Your task to perform on an android device: turn off javascript in the chrome app Image 0: 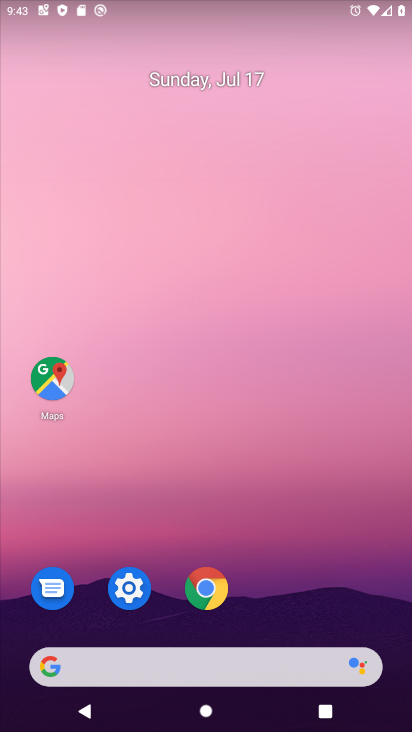
Step 0: drag from (279, 605) to (251, 8)
Your task to perform on an android device: turn off javascript in the chrome app Image 1: 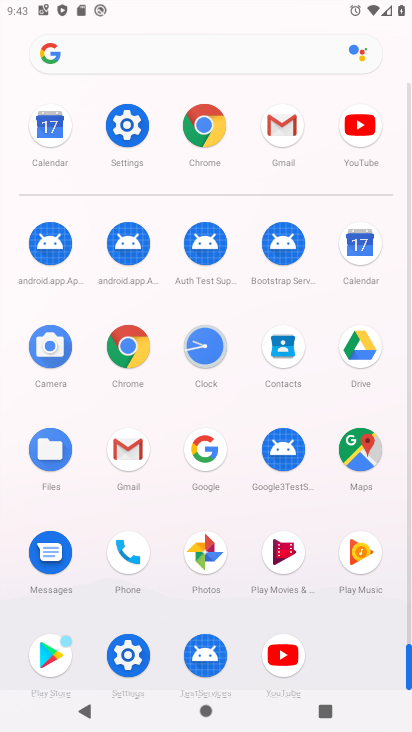
Step 1: click (204, 120)
Your task to perform on an android device: turn off javascript in the chrome app Image 2: 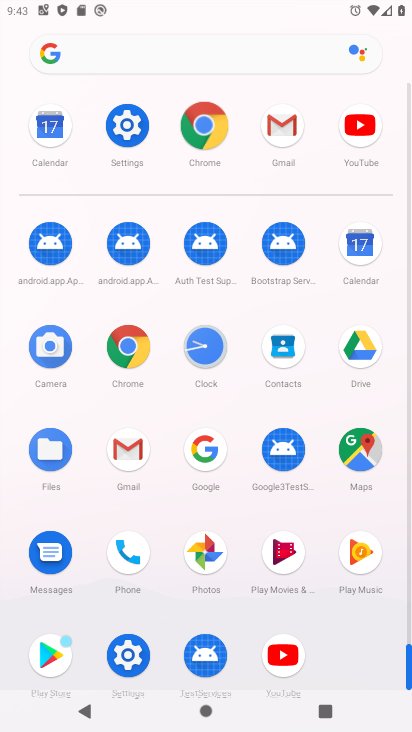
Step 2: click (202, 120)
Your task to perform on an android device: turn off javascript in the chrome app Image 3: 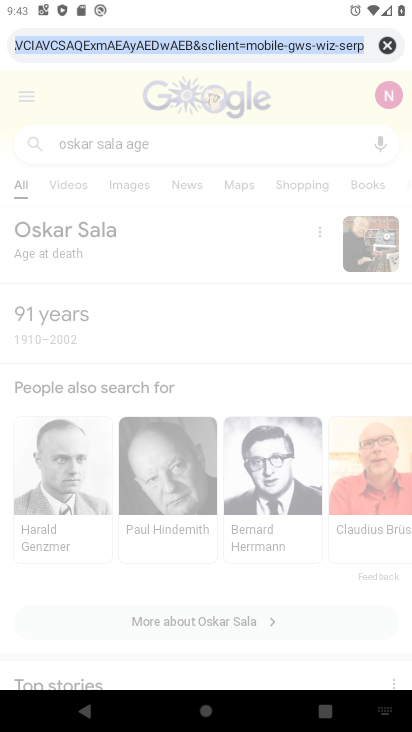
Step 3: press home button
Your task to perform on an android device: turn off javascript in the chrome app Image 4: 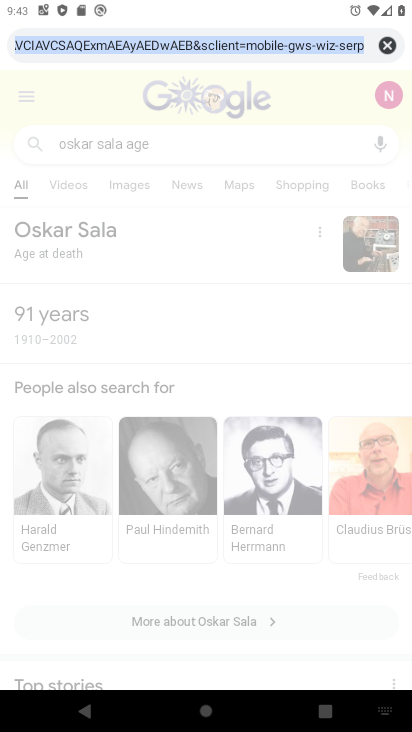
Step 4: press home button
Your task to perform on an android device: turn off javascript in the chrome app Image 5: 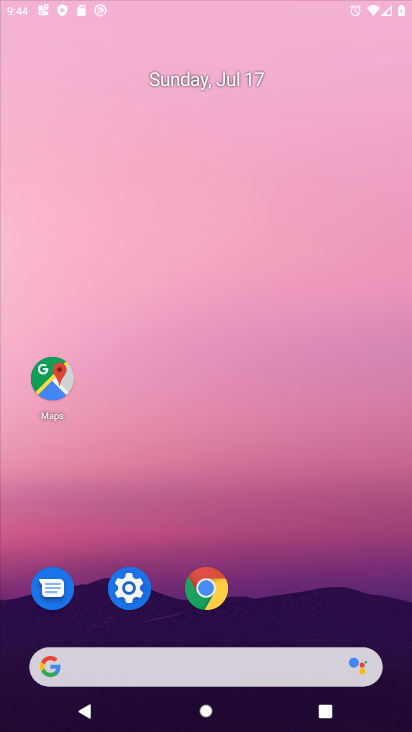
Step 5: press home button
Your task to perform on an android device: turn off javascript in the chrome app Image 6: 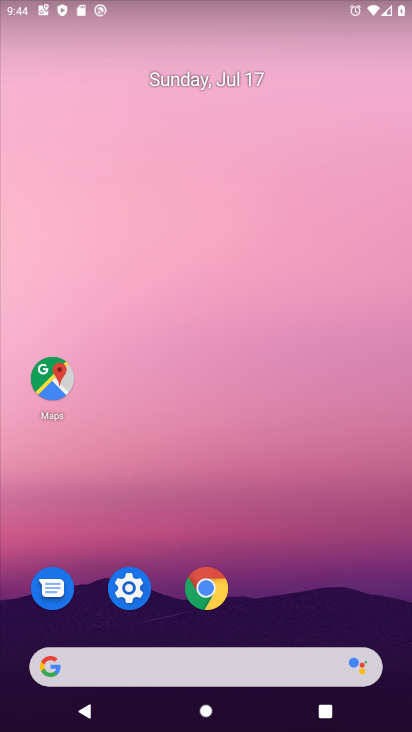
Step 6: press back button
Your task to perform on an android device: turn off javascript in the chrome app Image 7: 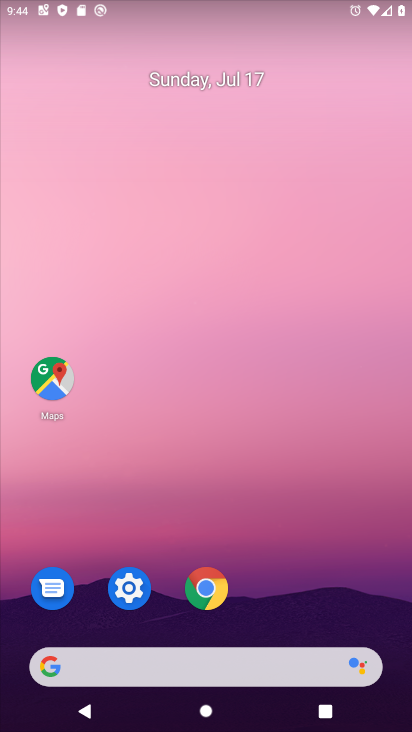
Step 7: press back button
Your task to perform on an android device: turn off javascript in the chrome app Image 8: 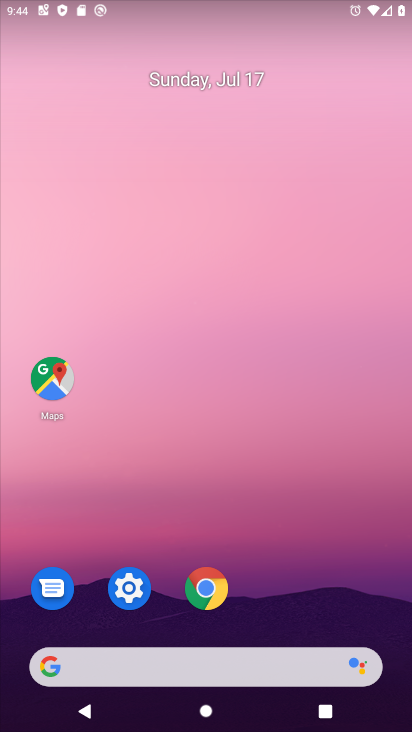
Step 8: drag from (291, 603) to (276, 149)
Your task to perform on an android device: turn off javascript in the chrome app Image 9: 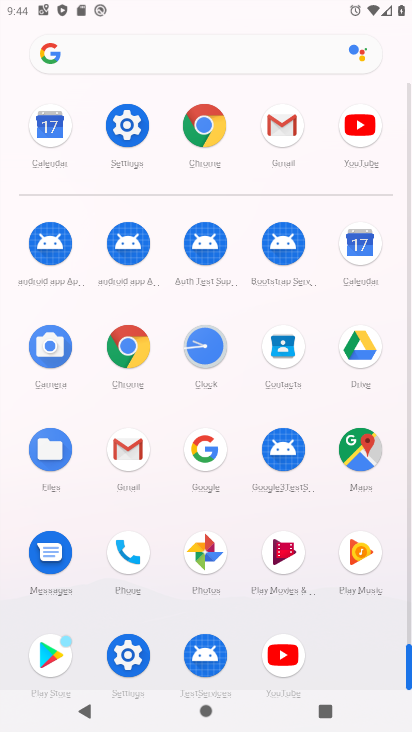
Step 9: click (207, 131)
Your task to perform on an android device: turn off javascript in the chrome app Image 10: 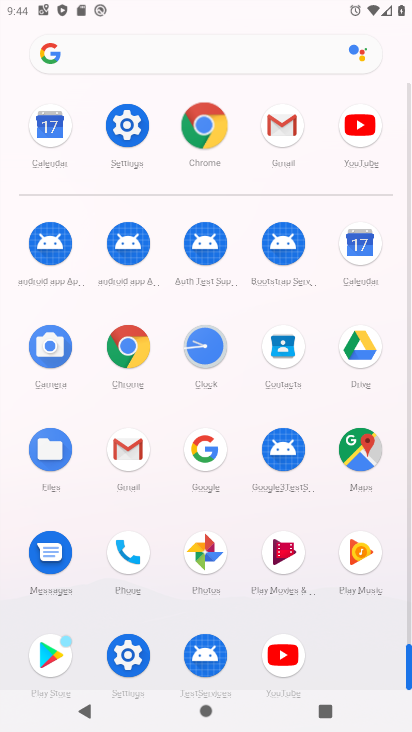
Step 10: click (207, 143)
Your task to perform on an android device: turn off javascript in the chrome app Image 11: 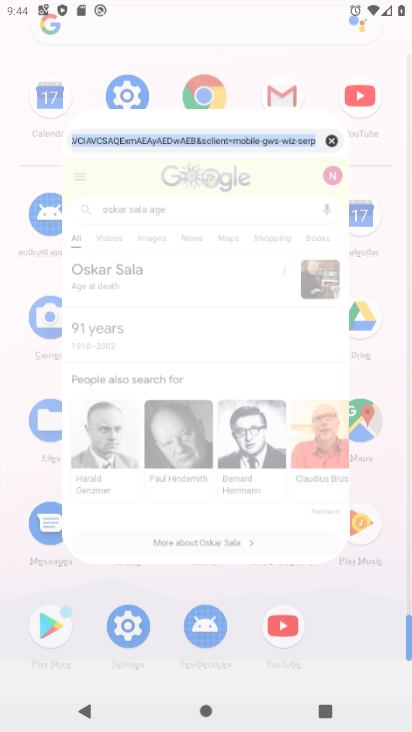
Step 11: click (207, 148)
Your task to perform on an android device: turn off javascript in the chrome app Image 12: 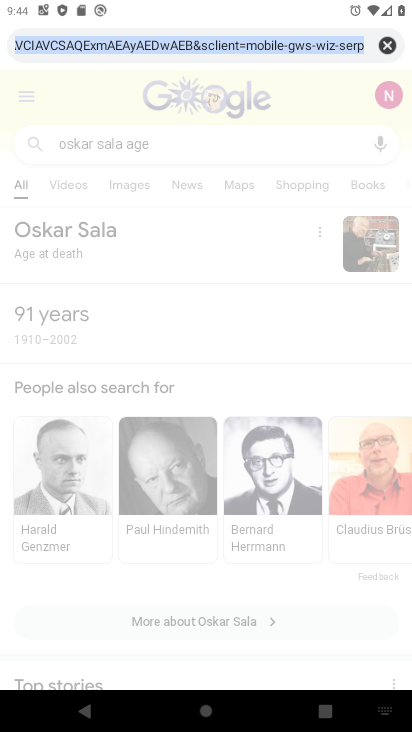
Step 12: click (389, 51)
Your task to perform on an android device: turn off javascript in the chrome app Image 13: 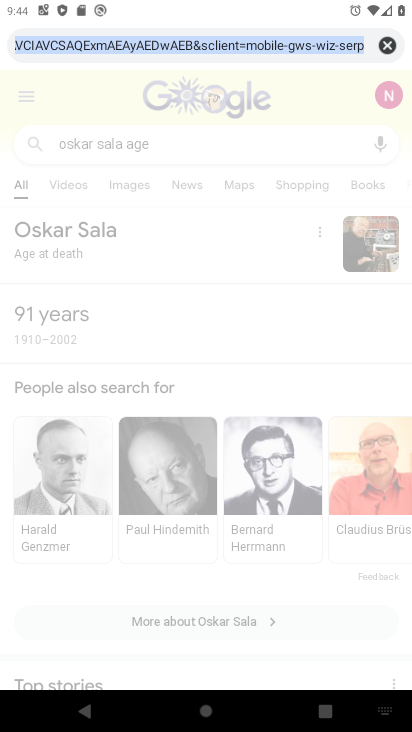
Step 13: click (389, 51)
Your task to perform on an android device: turn off javascript in the chrome app Image 14: 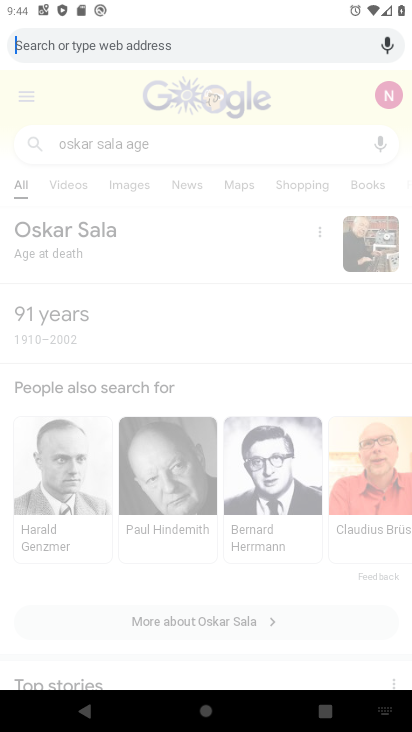
Step 14: click (387, 53)
Your task to perform on an android device: turn off javascript in the chrome app Image 15: 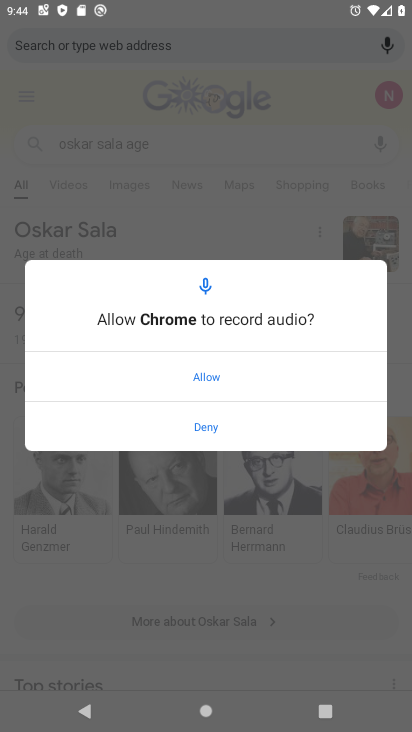
Step 15: click (207, 376)
Your task to perform on an android device: turn off javascript in the chrome app Image 16: 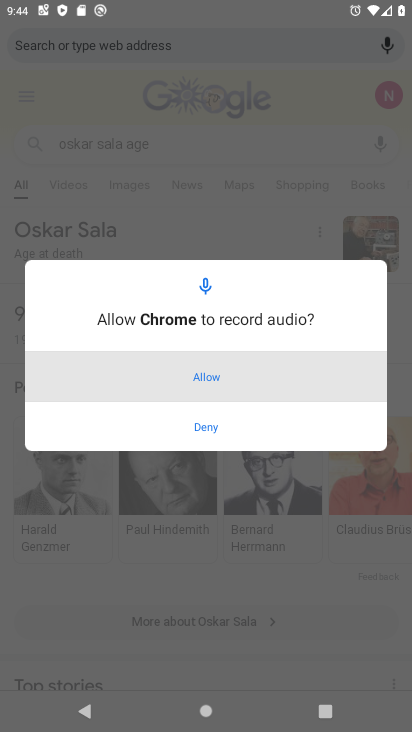
Step 16: click (207, 377)
Your task to perform on an android device: turn off javascript in the chrome app Image 17: 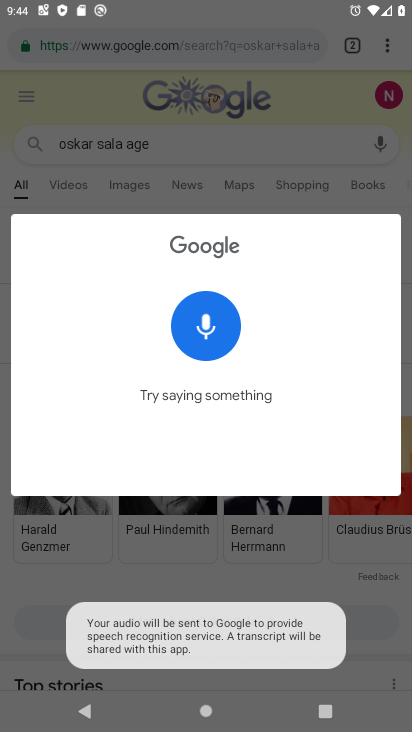
Step 17: click (388, 48)
Your task to perform on an android device: turn off javascript in the chrome app Image 18: 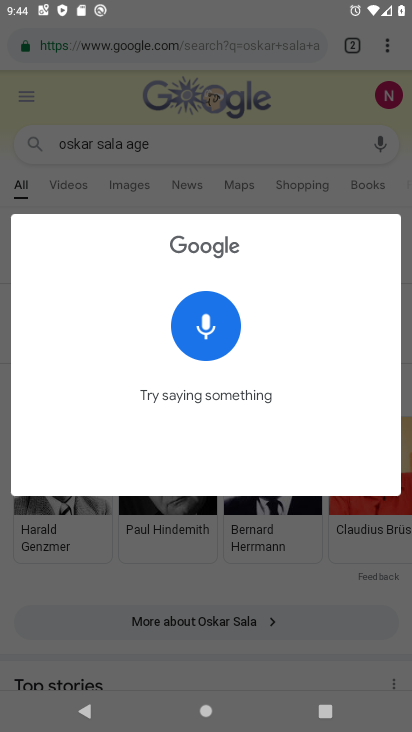
Step 18: click (384, 53)
Your task to perform on an android device: turn off javascript in the chrome app Image 19: 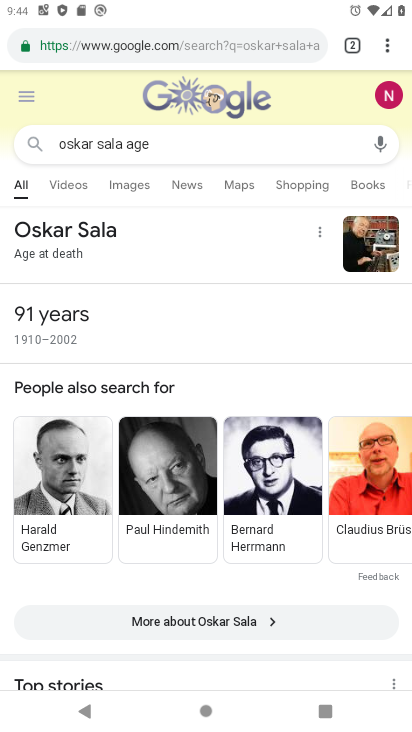
Step 19: click (386, 55)
Your task to perform on an android device: turn off javascript in the chrome app Image 20: 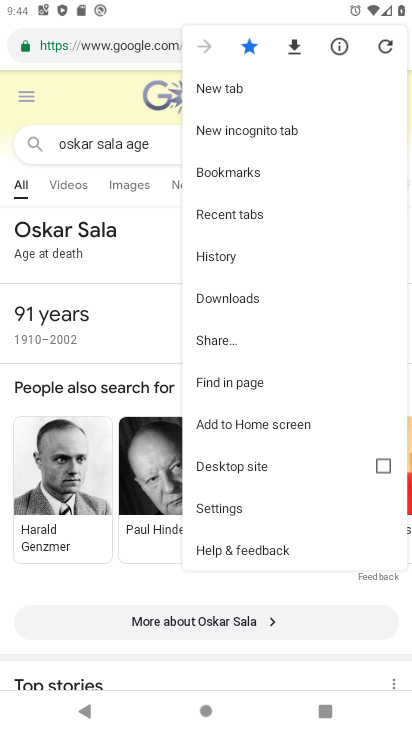
Step 20: click (225, 507)
Your task to perform on an android device: turn off javascript in the chrome app Image 21: 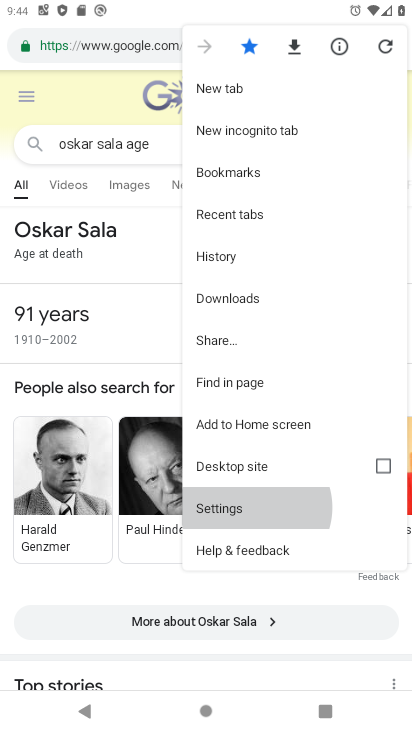
Step 21: click (228, 507)
Your task to perform on an android device: turn off javascript in the chrome app Image 22: 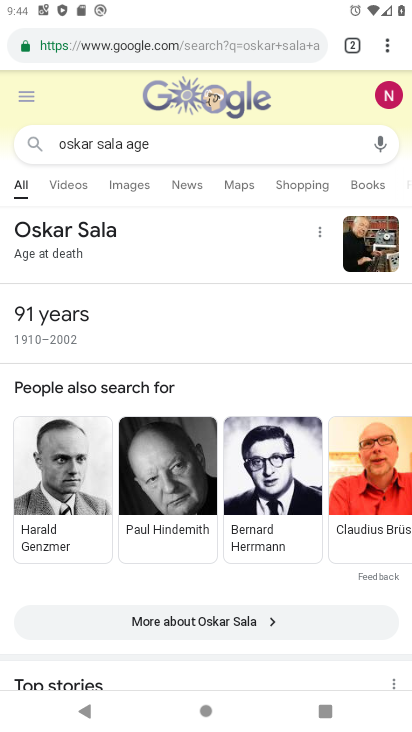
Step 22: click (227, 511)
Your task to perform on an android device: turn off javascript in the chrome app Image 23: 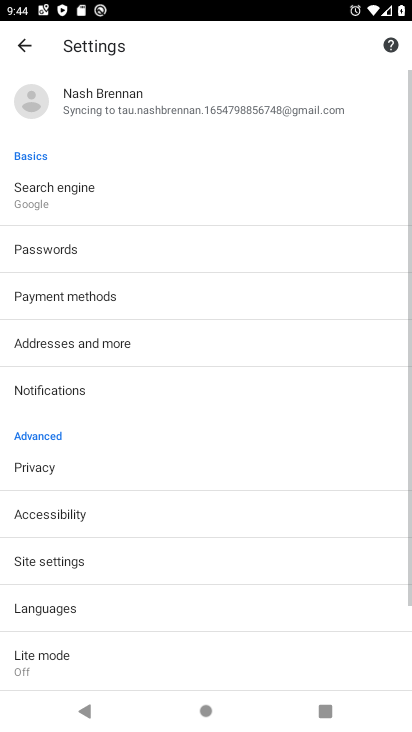
Step 23: drag from (83, 482) to (103, 33)
Your task to perform on an android device: turn off javascript in the chrome app Image 24: 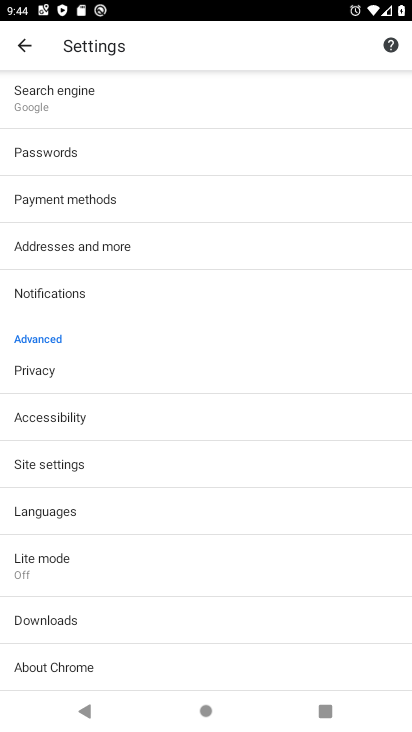
Step 24: click (43, 464)
Your task to perform on an android device: turn off javascript in the chrome app Image 25: 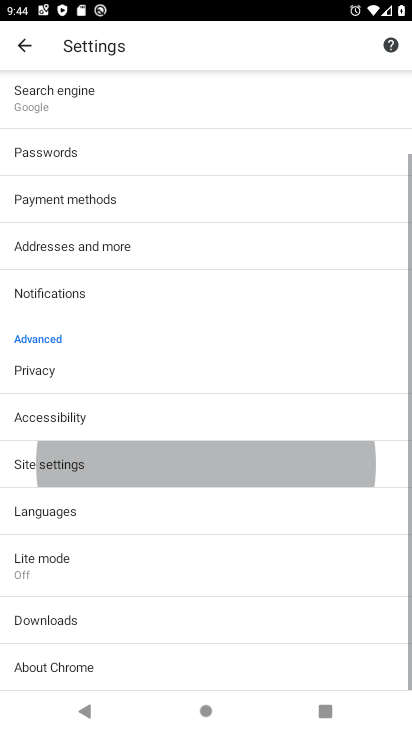
Step 25: click (63, 474)
Your task to perform on an android device: turn off javascript in the chrome app Image 26: 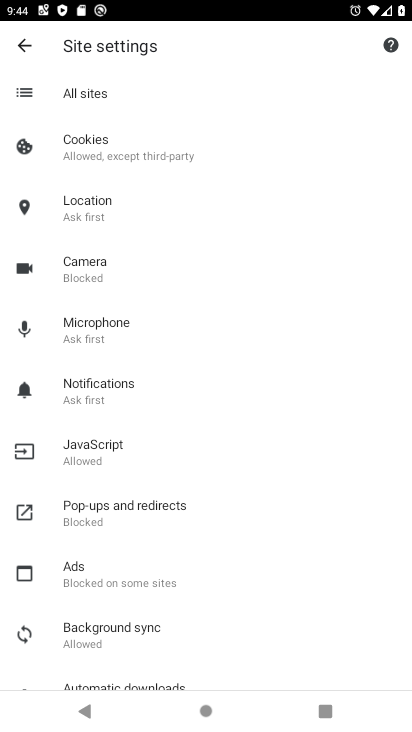
Step 26: click (96, 468)
Your task to perform on an android device: turn off javascript in the chrome app Image 27: 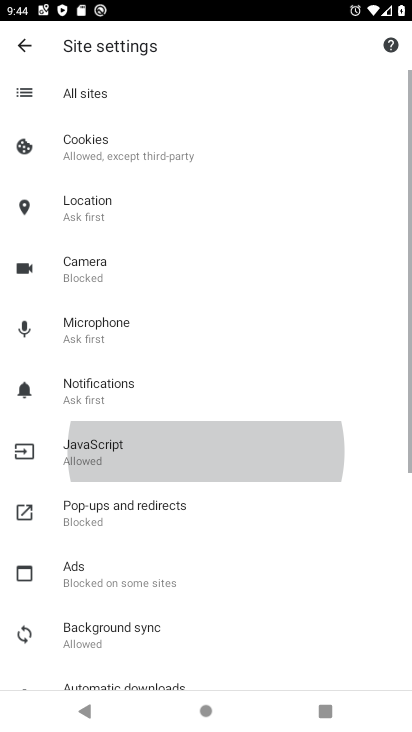
Step 27: click (96, 468)
Your task to perform on an android device: turn off javascript in the chrome app Image 28: 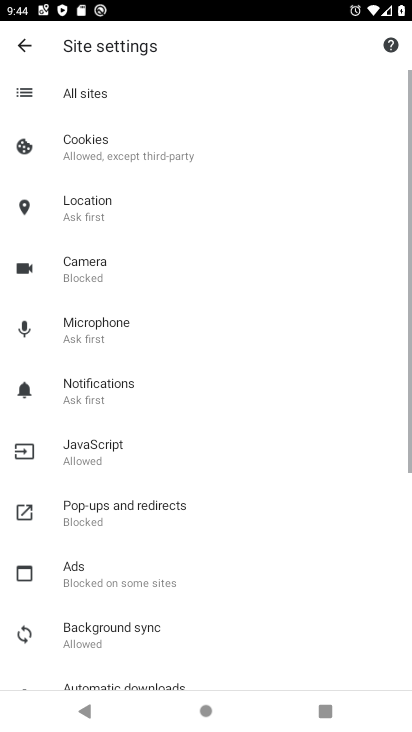
Step 28: click (101, 458)
Your task to perform on an android device: turn off javascript in the chrome app Image 29: 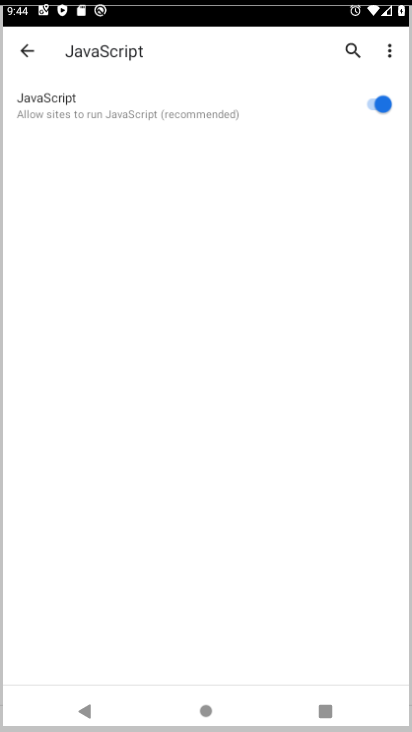
Step 29: click (101, 458)
Your task to perform on an android device: turn off javascript in the chrome app Image 30: 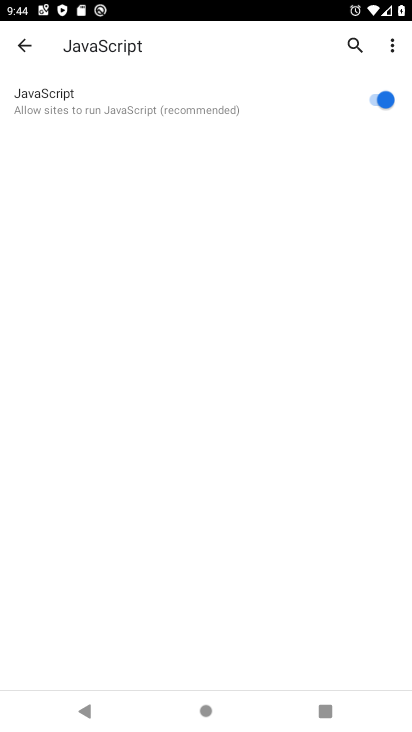
Step 30: click (378, 97)
Your task to perform on an android device: turn off javascript in the chrome app Image 31: 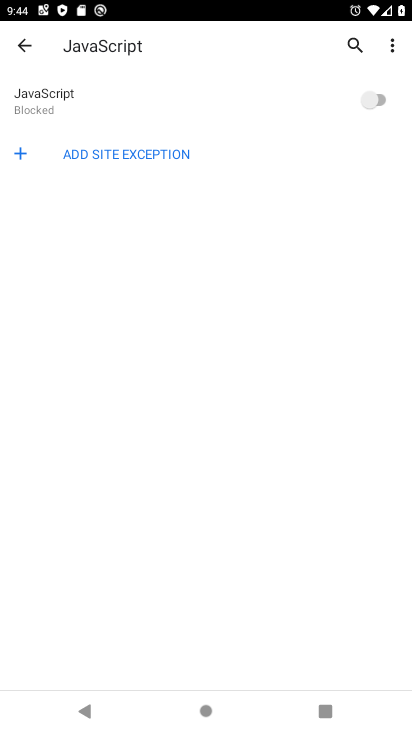
Step 31: task complete